Your task to perform on an android device: Go to settings Image 0: 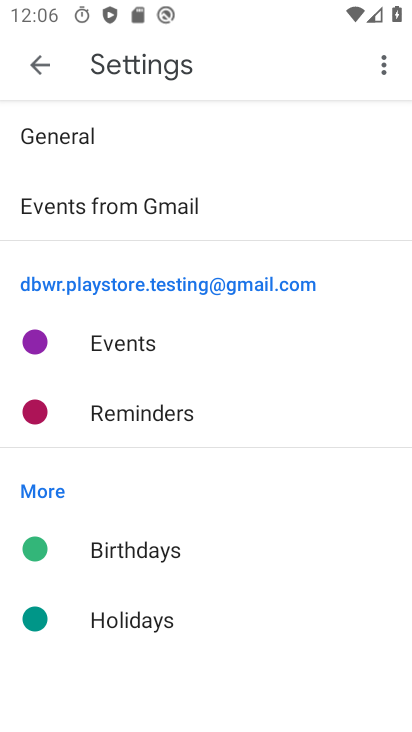
Step 0: press home button
Your task to perform on an android device: Go to settings Image 1: 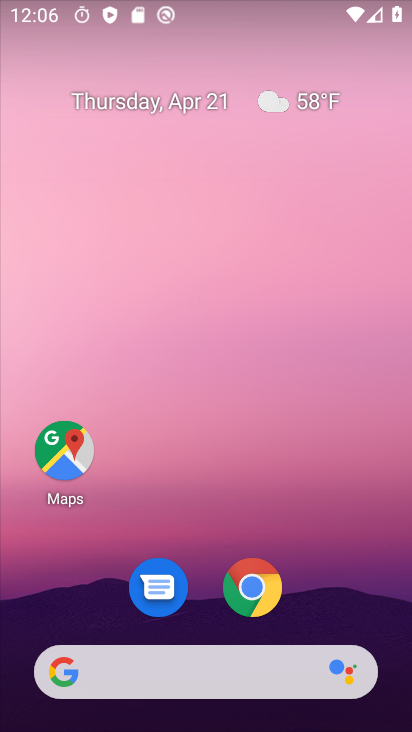
Step 1: drag from (202, 626) to (311, 5)
Your task to perform on an android device: Go to settings Image 2: 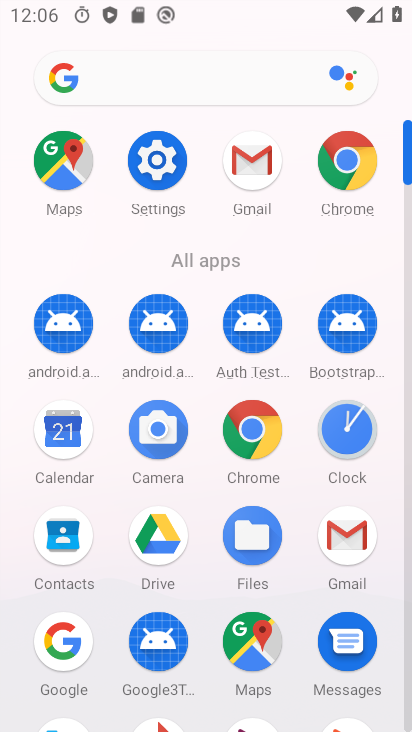
Step 2: click (154, 169)
Your task to perform on an android device: Go to settings Image 3: 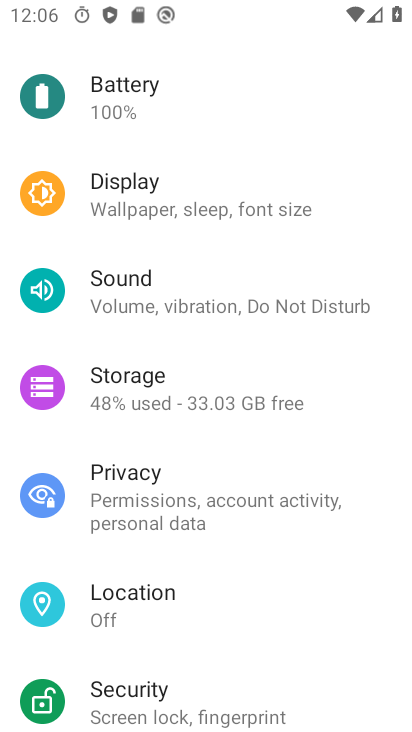
Step 3: task complete